Your task to perform on an android device: toggle notification dots Image 0: 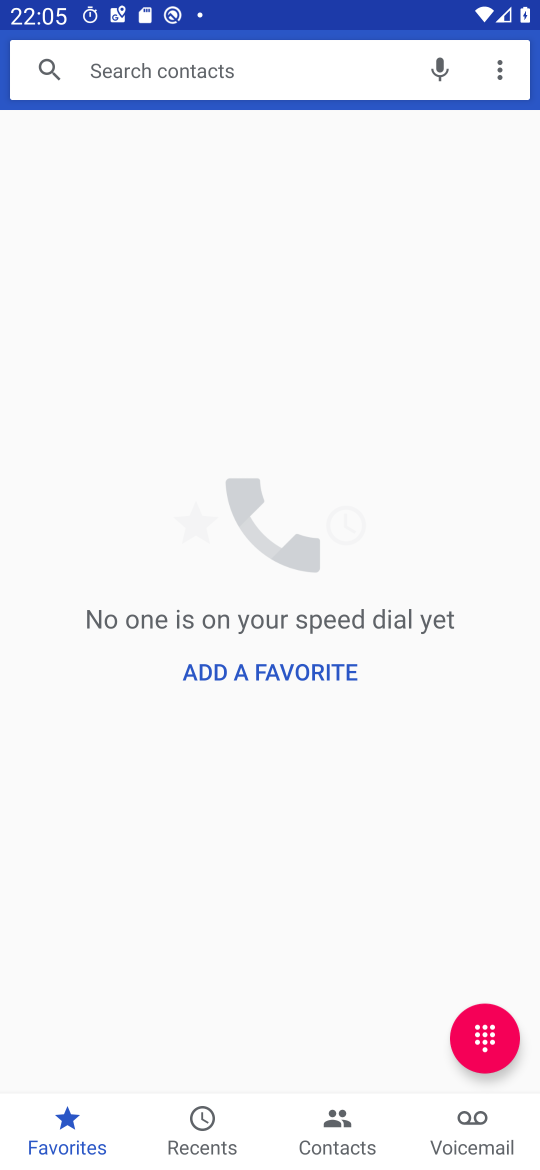
Step 0: press home button
Your task to perform on an android device: toggle notification dots Image 1: 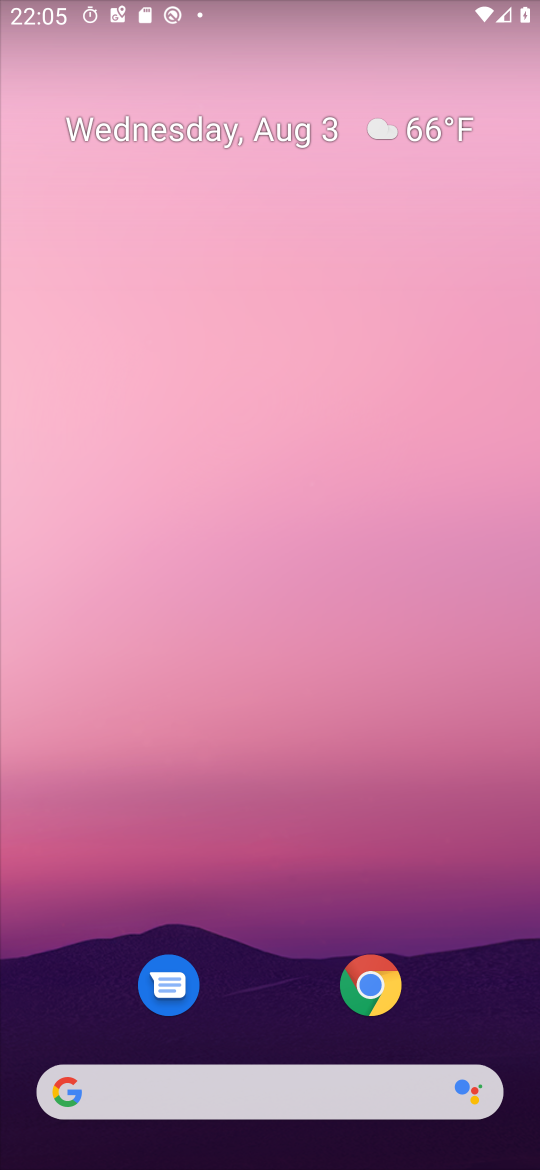
Step 1: drag from (255, 994) to (244, 267)
Your task to perform on an android device: toggle notification dots Image 2: 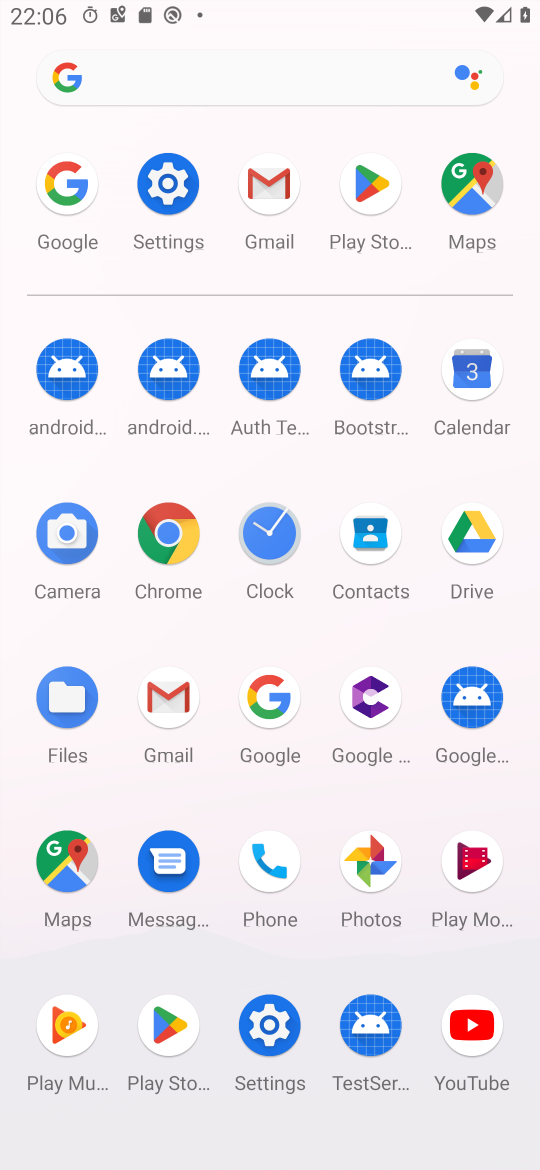
Step 2: click (204, 201)
Your task to perform on an android device: toggle notification dots Image 3: 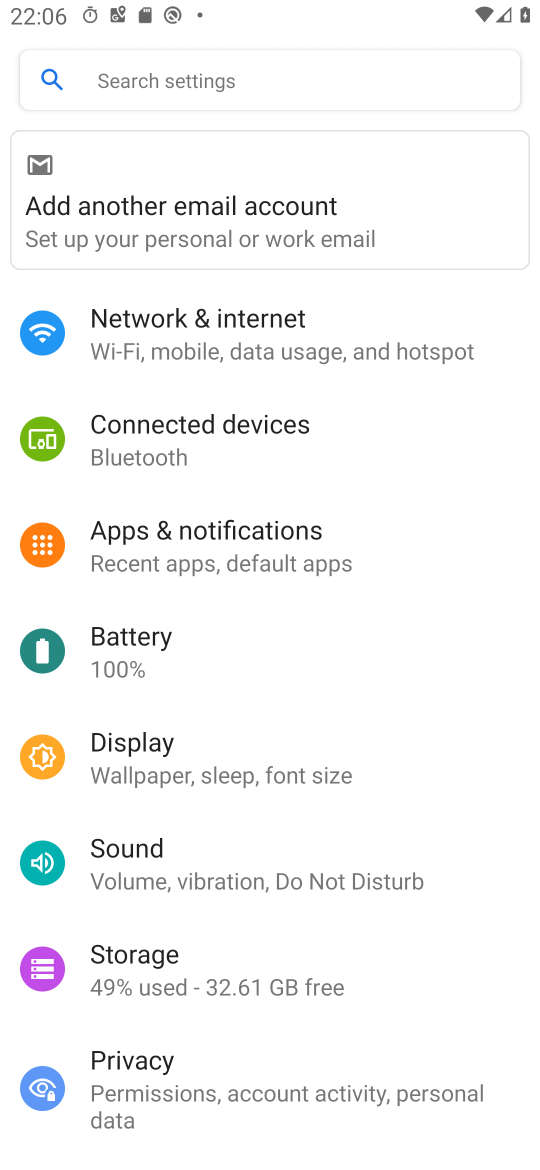
Step 3: click (298, 574)
Your task to perform on an android device: toggle notification dots Image 4: 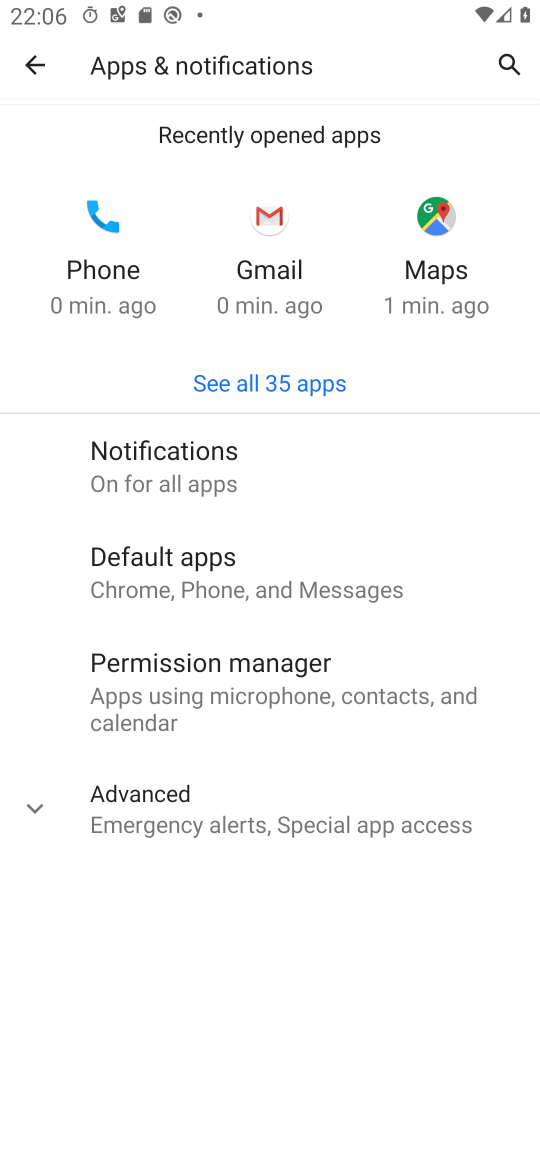
Step 4: click (213, 481)
Your task to perform on an android device: toggle notification dots Image 5: 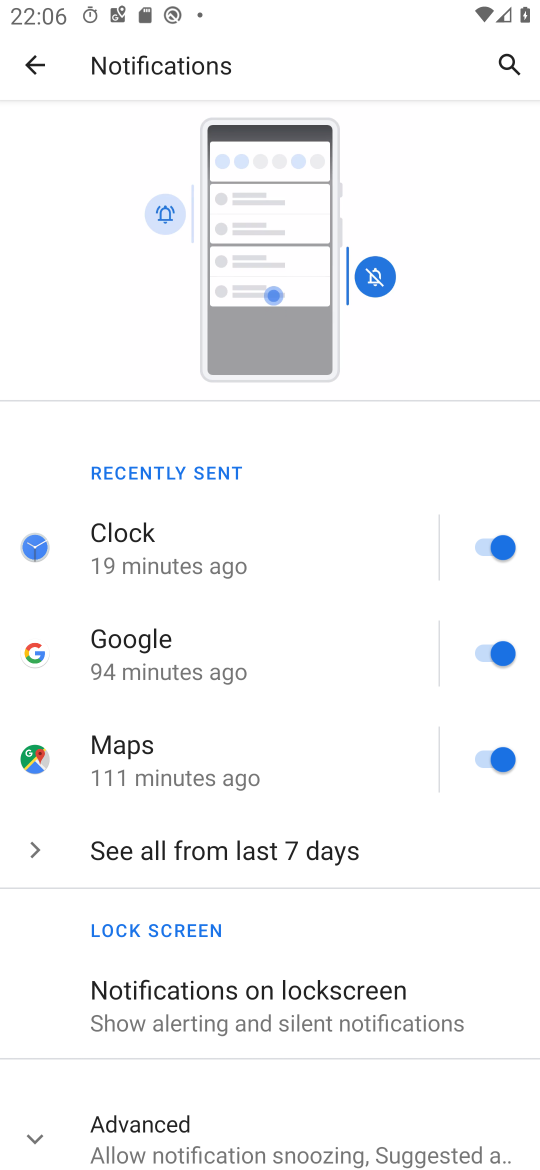
Step 5: drag from (253, 1081) to (319, 661)
Your task to perform on an android device: toggle notification dots Image 6: 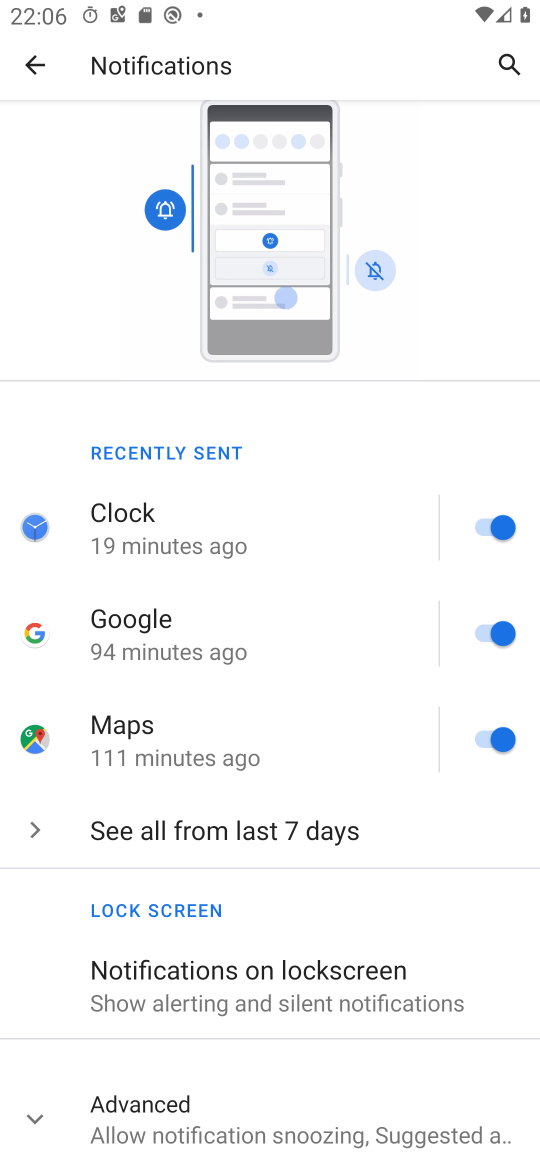
Step 6: click (293, 1114)
Your task to perform on an android device: toggle notification dots Image 7: 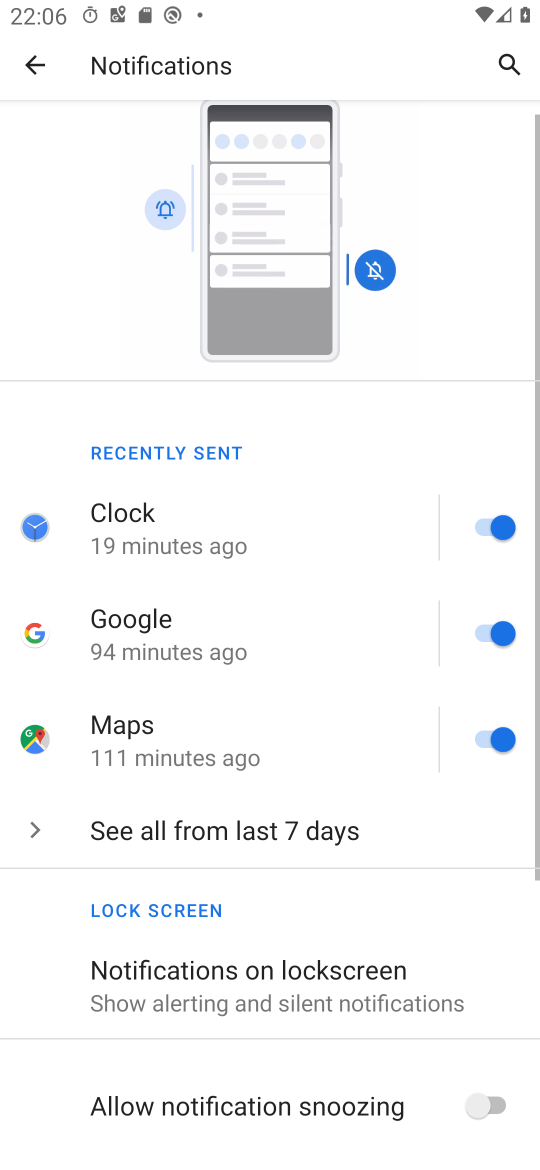
Step 7: drag from (306, 1045) to (282, 551)
Your task to perform on an android device: toggle notification dots Image 8: 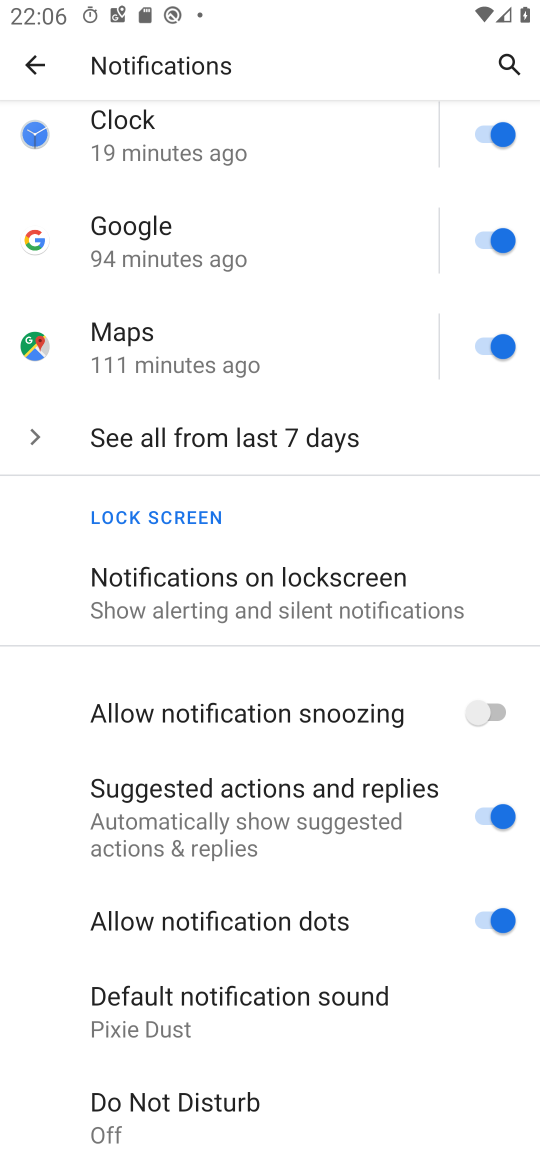
Step 8: click (287, 1119)
Your task to perform on an android device: toggle notification dots Image 9: 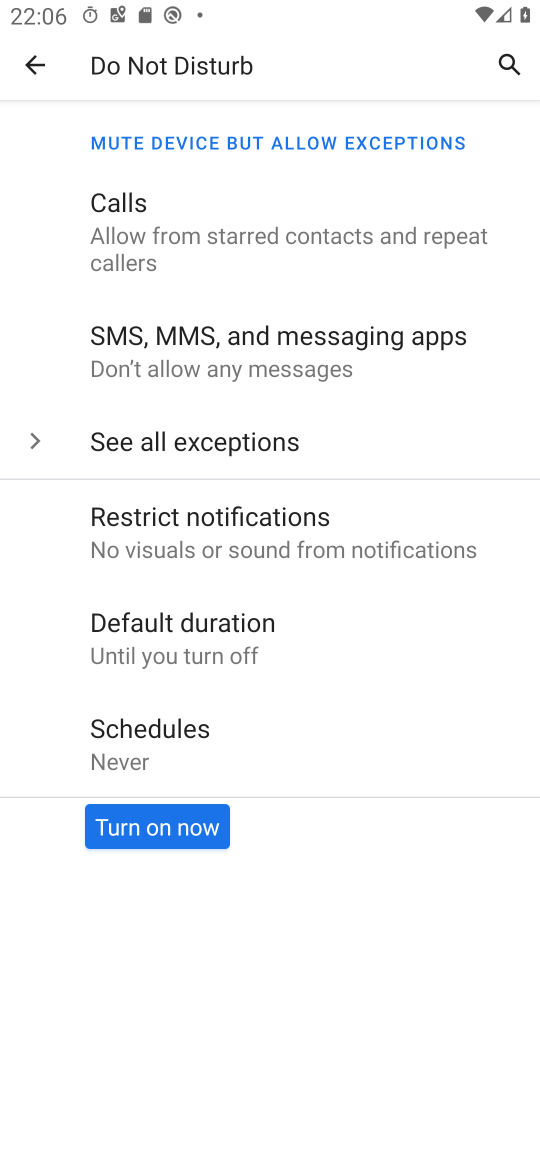
Step 9: click (16, 67)
Your task to perform on an android device: toggle notification dots Image 10: 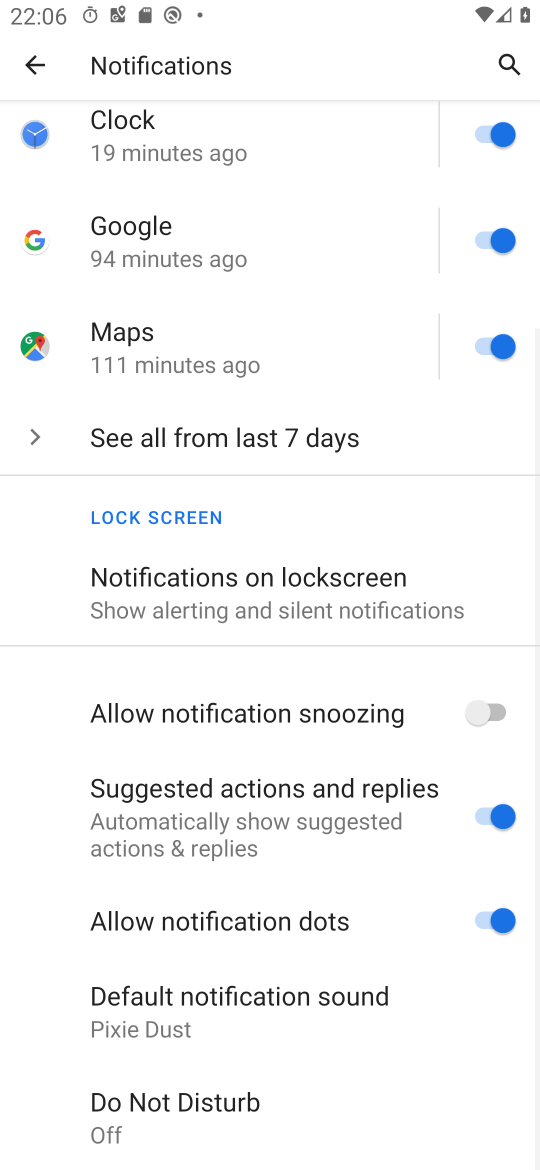
Step 10: drag from (215, 441) to (239, 931)
Your task to perform on an android device: toggle notification dots Image 11: 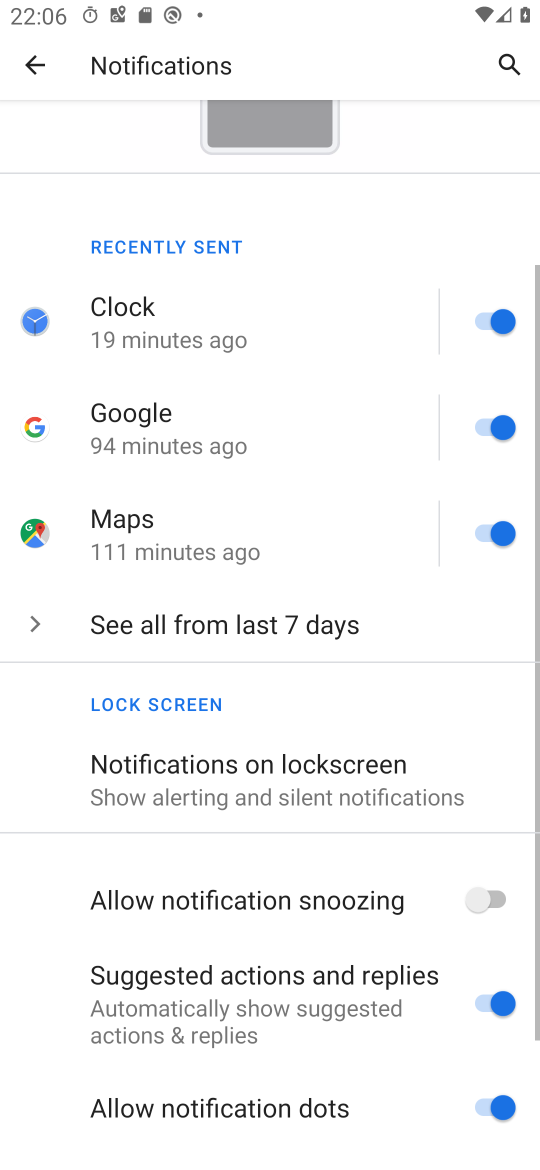
Step 11: drag from (245, 1065) to (249, 582)
Your task to perform on an android device: toggle notification dots Image 12: 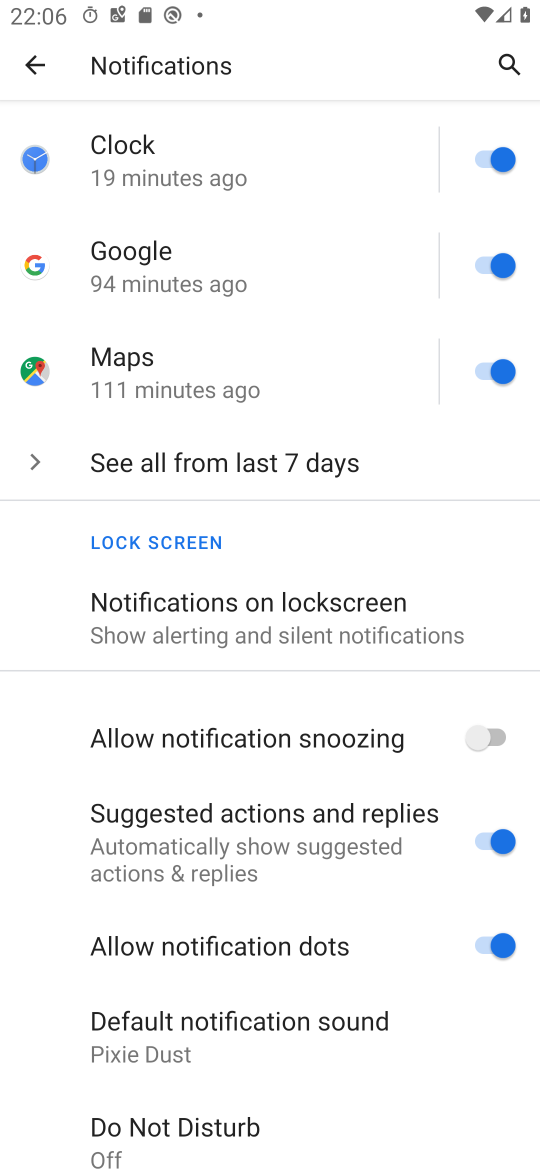
Step 12: click (484, 956)
Your task to perform on an android device: toggle notification dots Image 13: 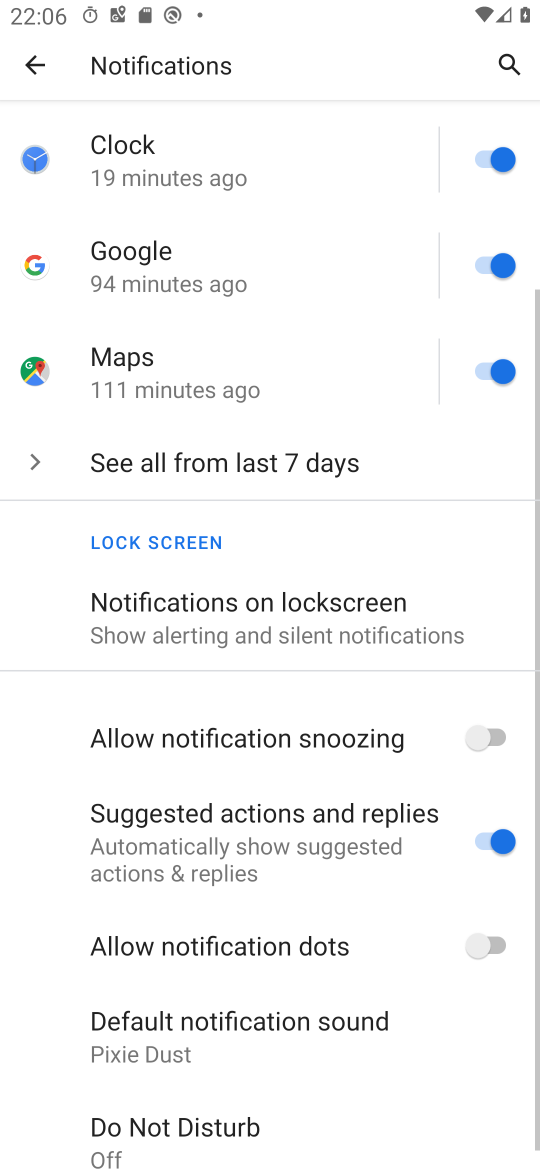
Step 13: task complete